Your task to perform on an android device: set the timer Image 0: 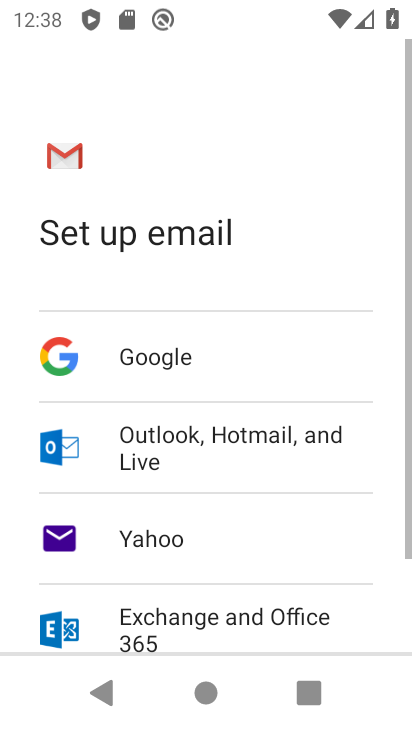
Step 0: press back button
Your task to perform on an android device: set the timer Image 1: 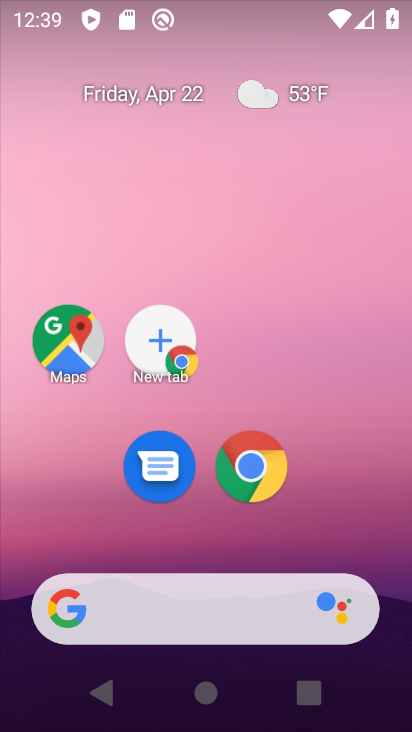
Step 1: drag from (330, 481) to (292, 46)
Your task to perform on an android device: set the timer Image 2: 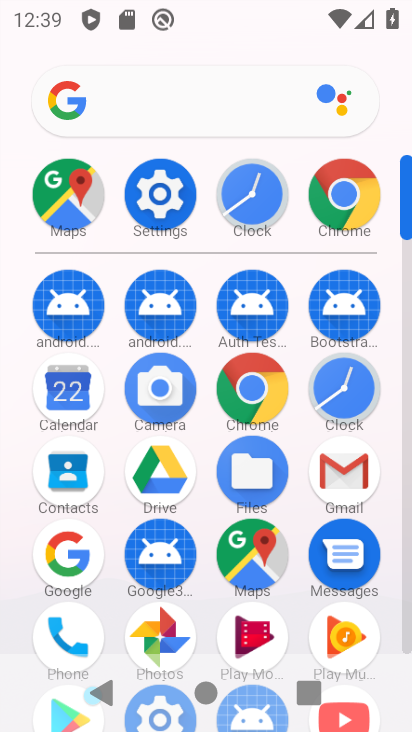
Step 2: drag from (17, 563) to (30, 374)
Your task to perform on an android device: set the timer Image 3: 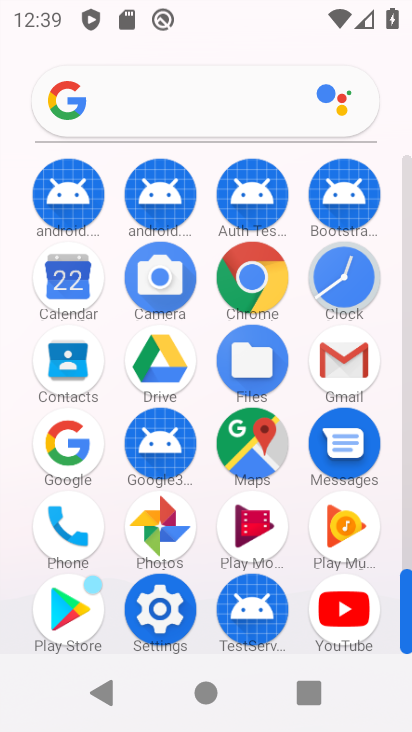
Step 3: click (343, 279)
Your task to perform on an android device: set the timer Image 4: 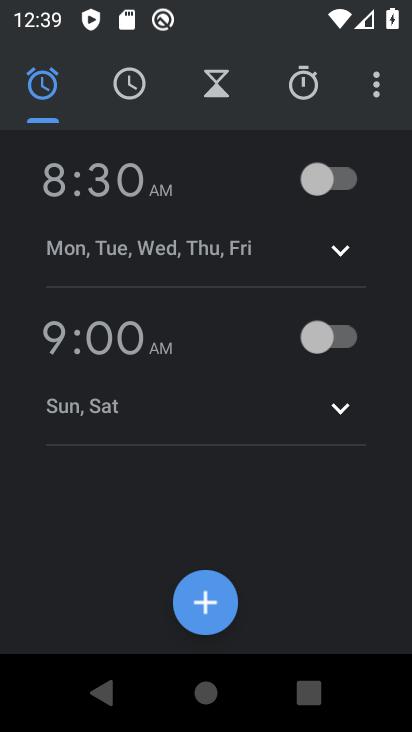
Step 4: click (203, 78)
Your task to perform on an android device: set the timer Image 5: 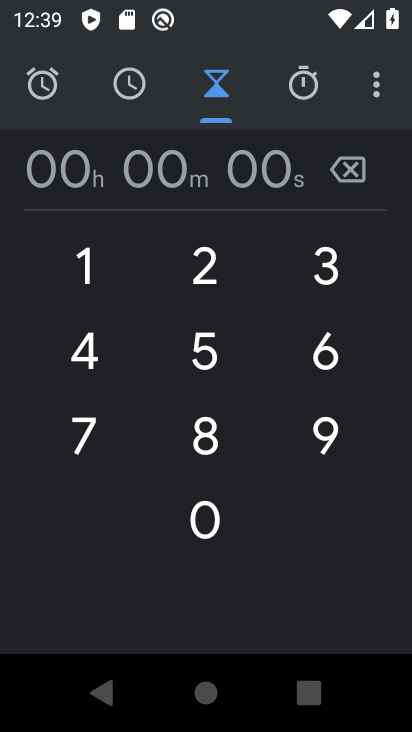
Step 5: click (217, 431)
Your task to perform on an android device: set the timer Image 6: 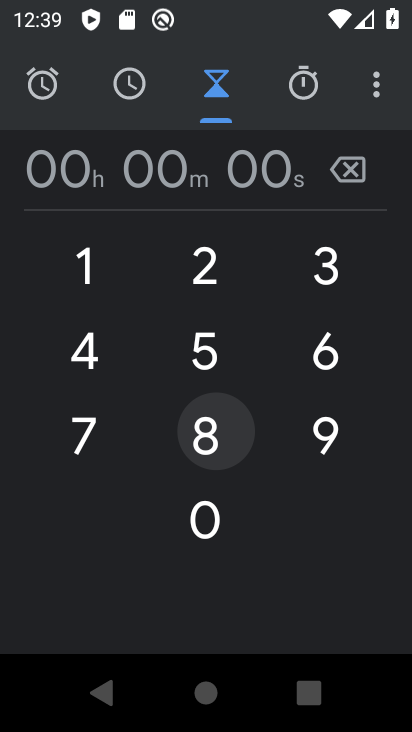
Step 6: click (179, 314)
Your task to perform on an android device: set the timer Image 7: 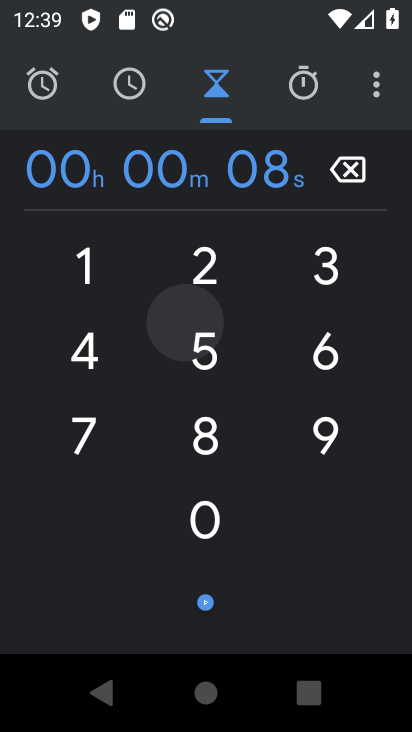
Step 7: click (210, 274)
Your task to perform on an android device: set the timer Image 8: 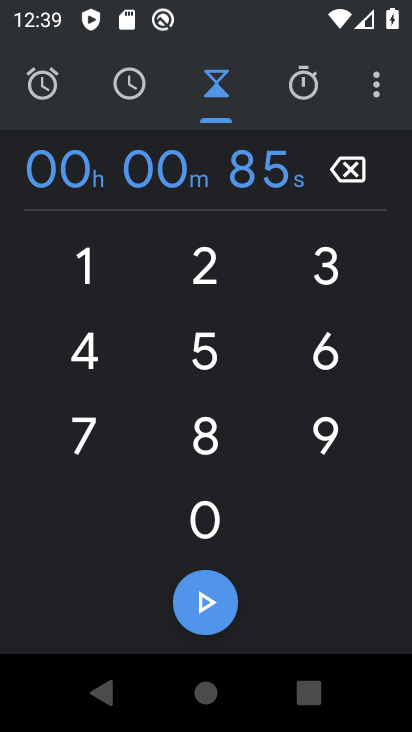
Step 8: click (300, 274)
Your task to perform on an android device: set the timer Image 9: 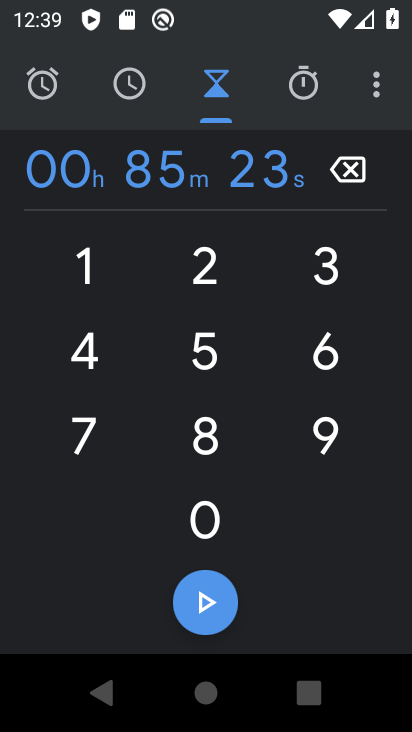
Step 9: click (202, 609)
Your task to perform on an android device: set the timer Image 10: 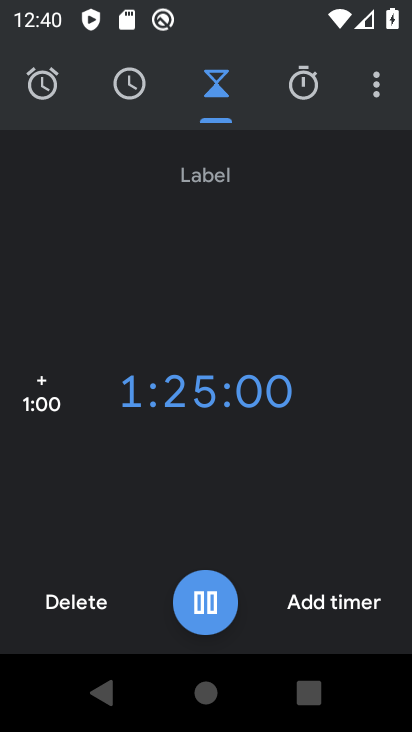
Step 10: task complete